Your task to perform on an android device: open app "Facebook" (install if not already installed) Image 0: 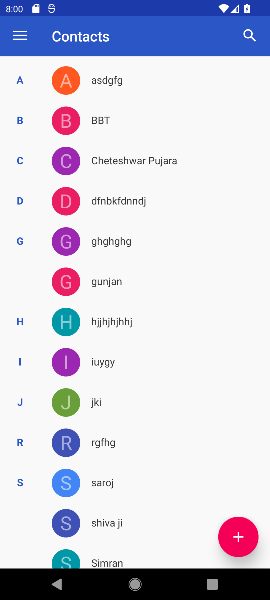
Step 0: task complete